Your task to perform on an android device: clear all cookies in the chrome app Image 0: 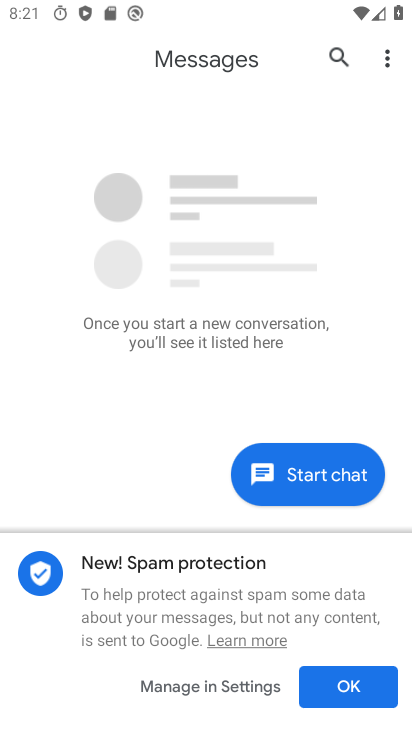
Step 0: press home button
Your task to perform on an android device: clear all cookies in the chrome app Image 1: 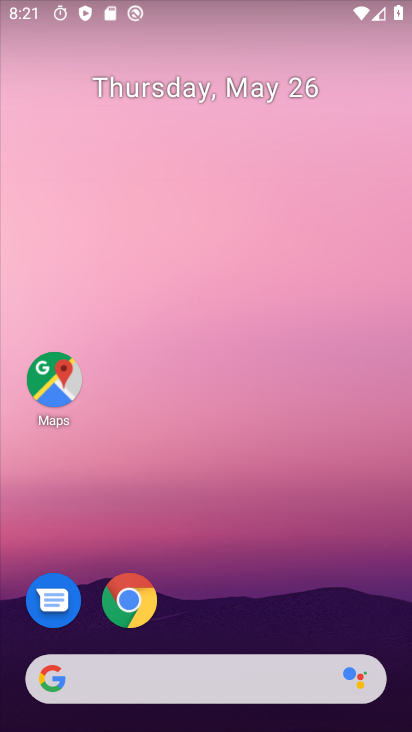
Step 1: click (134, 599)
Your task to perform on an android device: clear all cookies in the chrome app Image 2: 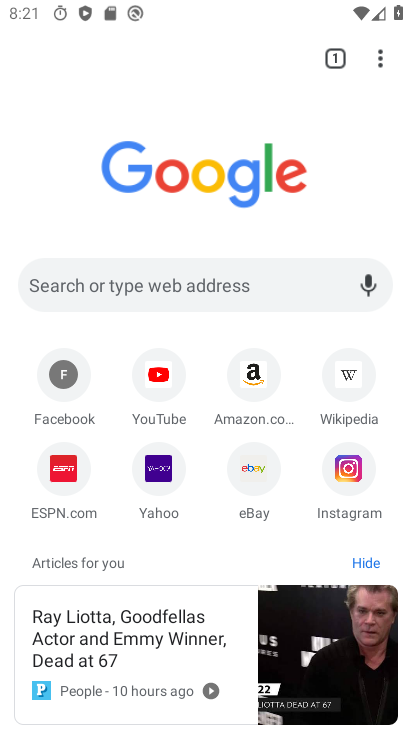
Step 2: click (375, 59)
Your task to perform on an android device: clear all cookies in the chrome app Image 3: 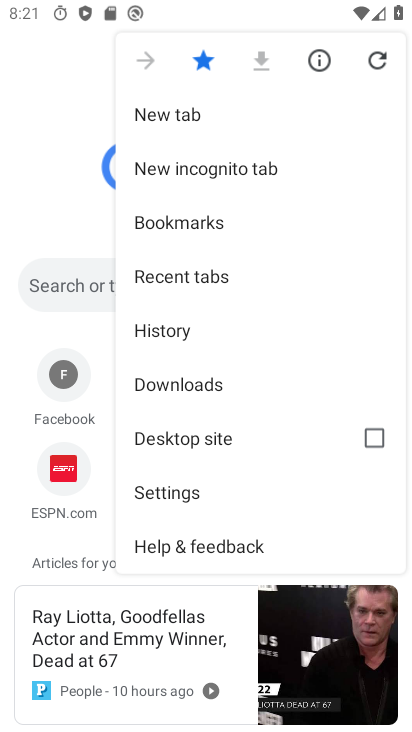
Step 3: click (185, 494)
Your task to perform on an android device: clear all cookies in the chrome app Image 4: 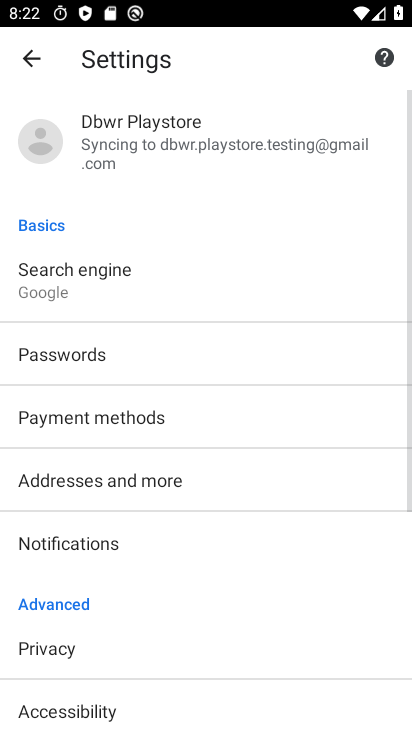
Step 4: click (106, 651)
Your task to perform on an android device: clear all cookies in the chrome app Image 5: 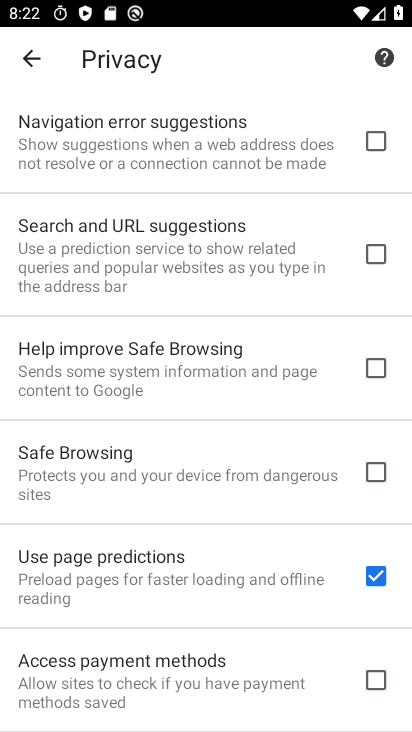
Step 5: drag from (190, 589) to (303, 76)
Your task to perform on an android device: clear all cookies in the chrome app Image 6: 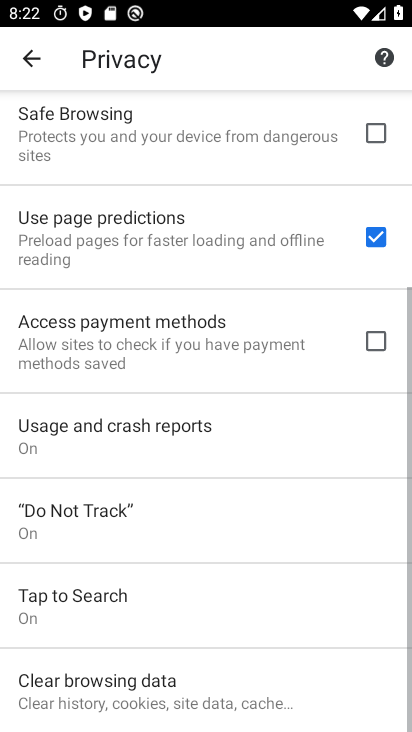
Step 6: click (213, 699)
Your task to perform on an android device: clear all cookies in the chrome app Image 7: 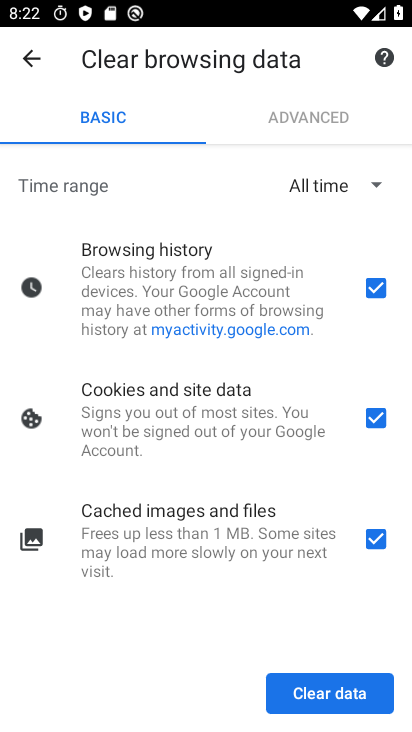
Step 7: click (377, 292)
Your task to perform on an android device: clear all cookies in the chrome app Image 8: 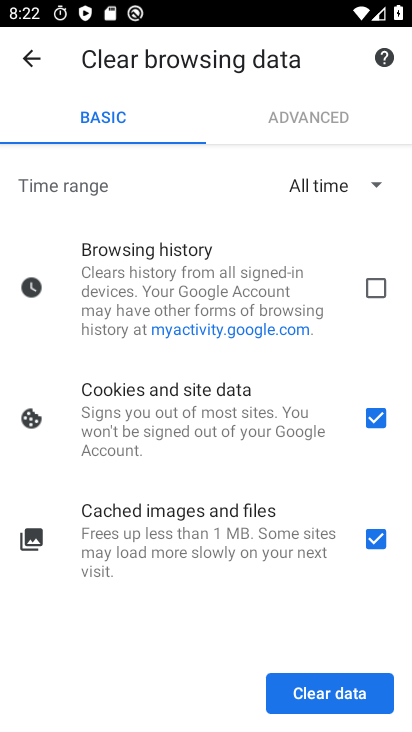
Step 8: click (375, 535)
Your task to perform on an android device: clear all cookies in the chrome app Image 9: 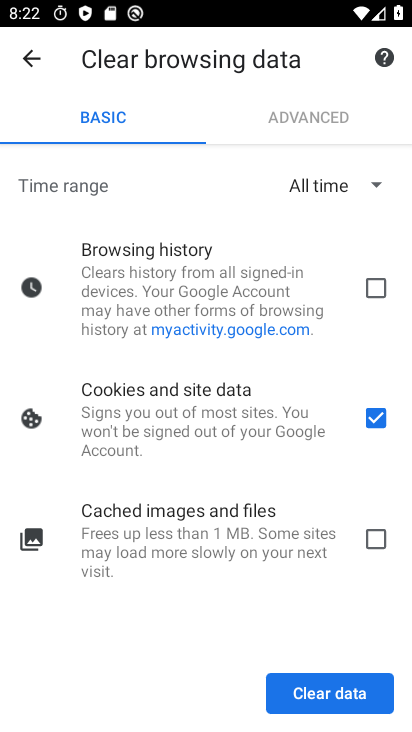
Step 9: click (337, 696)
Your task to perform on an android device: clear all cookies in the chrome app Image 10: 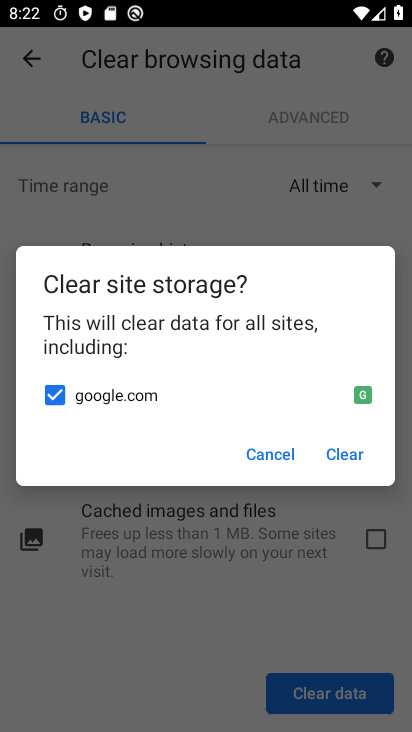
Step 10: click (347, 458)
Your task to perform on an android device: clear all cookies in the chrome app Image 11: 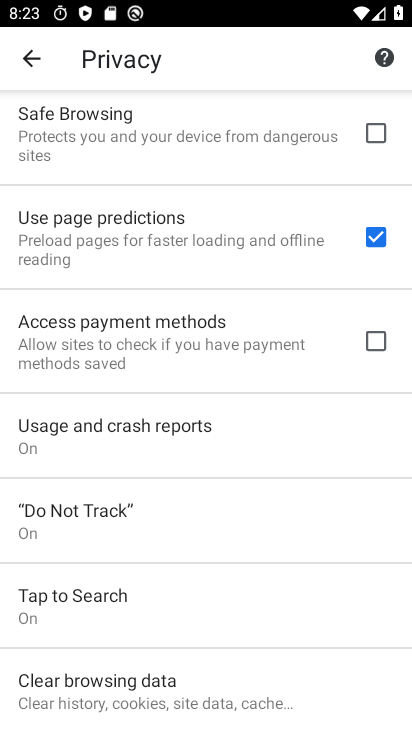
Step 11: task complete